Your task to perform on an android device: Open battery settings Image 0: 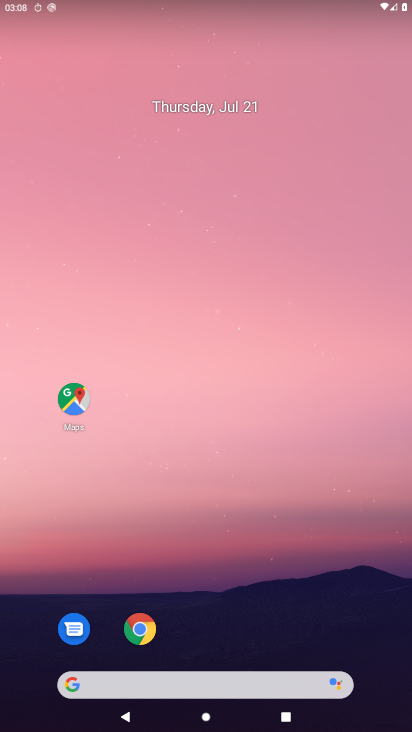
Step 0: drag from (47, 675) to (184, 262)
Your task to perform on an android device: Open battery settings Image 1: 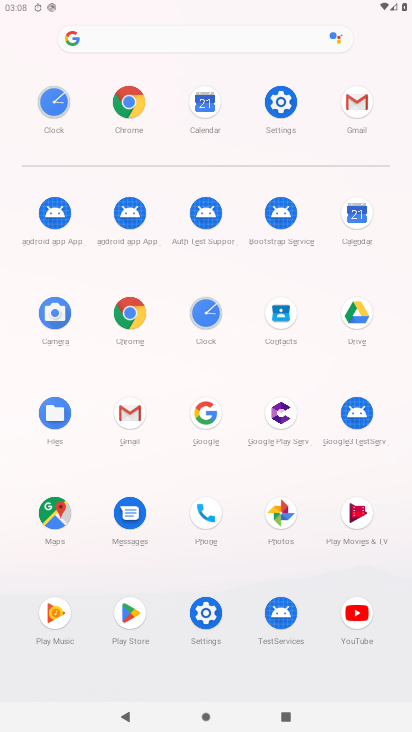
Step 1: click (217, 620)
Your task to perform on an android device: Open battery settings Image 2: 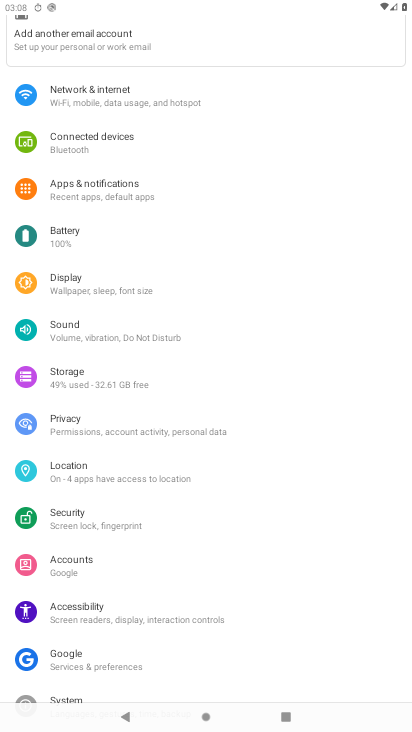
Step 2: click (77, 221)
Your task to perform on an android device: Open battery settings Image 3: 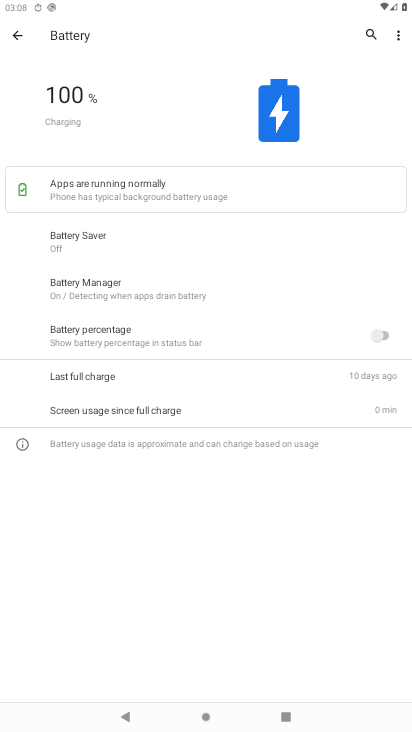
Step 3: task complete